Your task to perform on an android device: Toggle the flashlight Image 0: 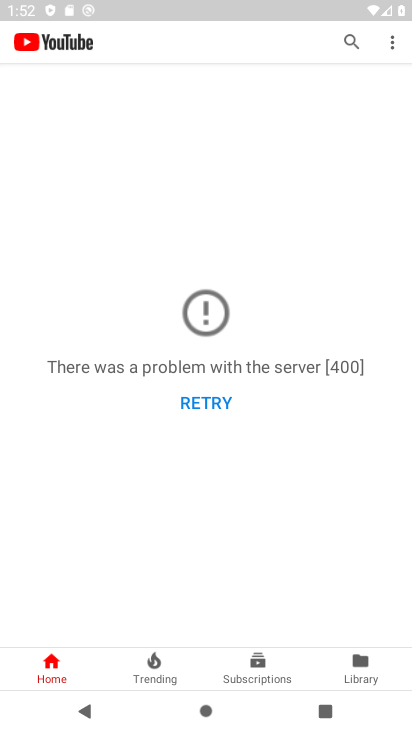
Step 0: press back button
Your task to perform on an android device: Toggle the flashlight Image 1: 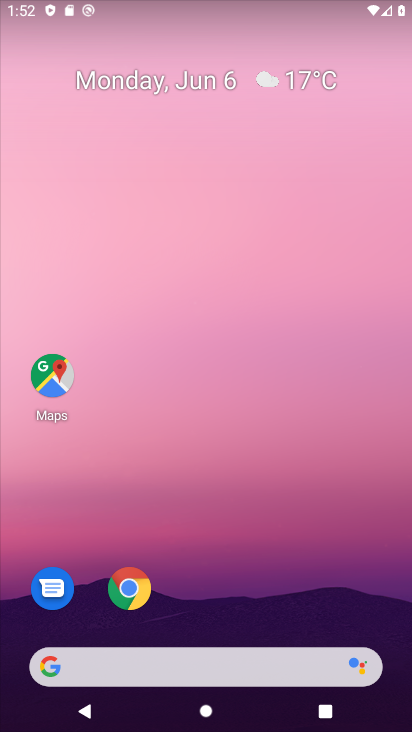
Step 1: task complete